Your task to perform on an android device: Open sound settings Image 0: 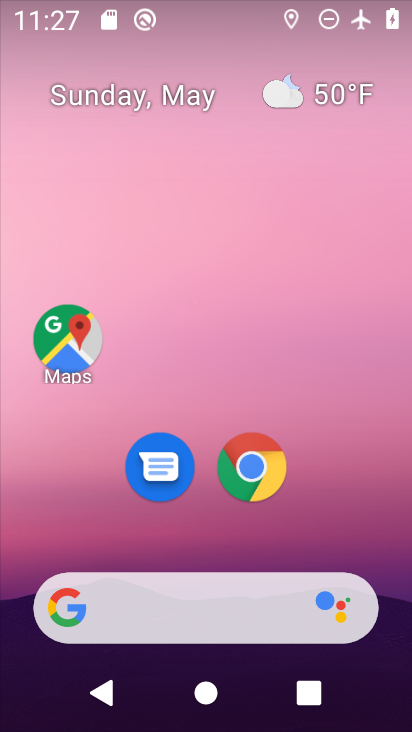
Step 0: drag from (197, 459) to (183, 224)
Your task to perform on an android device: Open sound settings Image 1: 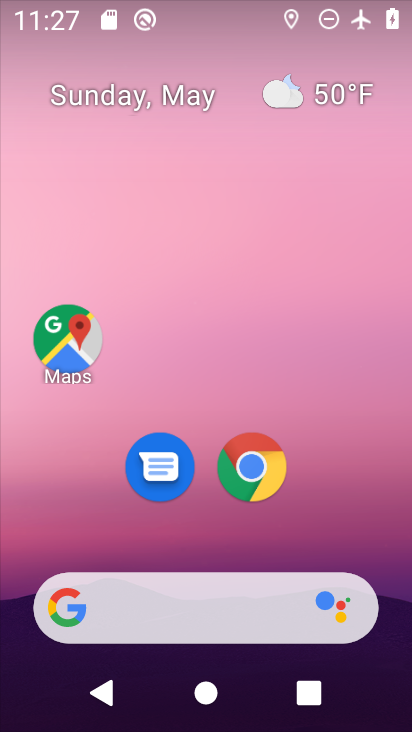
Step 1: drag from (204, 552) to (198, 35)
Your task to perform on an android device: Open sound settings Image 2: 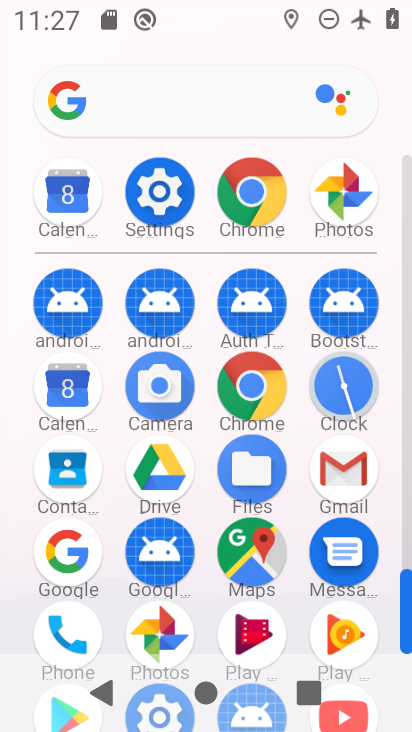
Step 2: click (155, 175)
Your task to perform on an android device: Open sound settings Image 3: 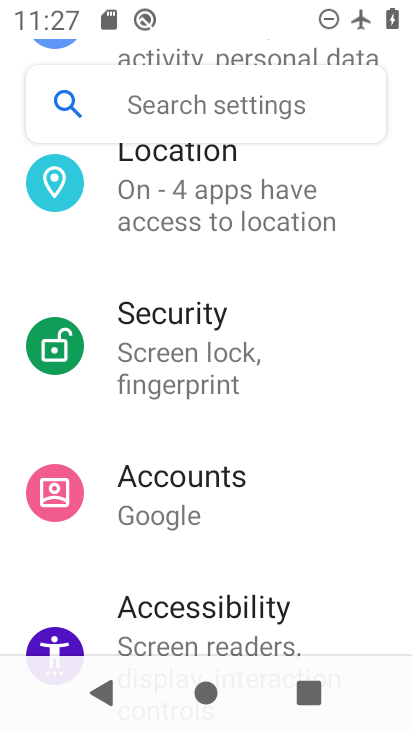
Step 3: drag from (256, 230) to (230, 494)
Your task to perform on an android device: Open sound settings Image 4: 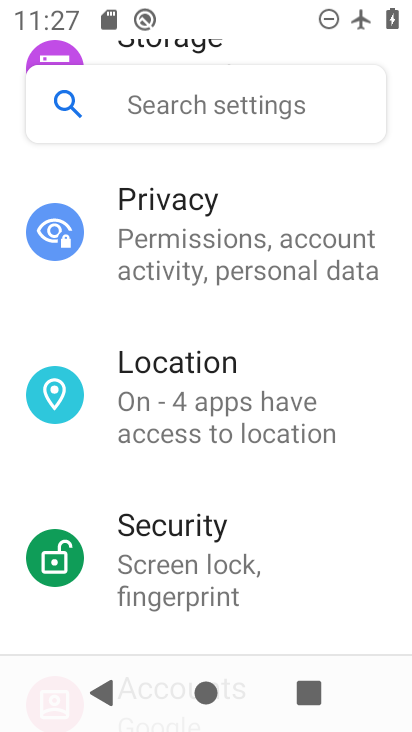
Step 4: drag from (229, 329) to (204, 588)
Your task to perform on an android device: Open sound settings Image 5: 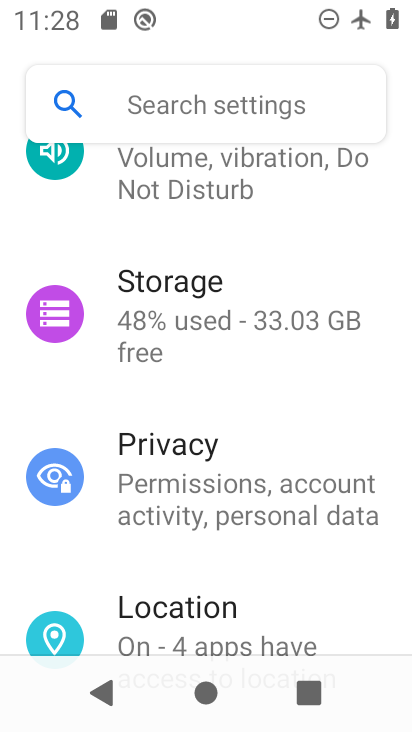
Step 5: drag from (196, 313) to (207, 508)
Your task to perform on an android device: Open sound settings Image 6: 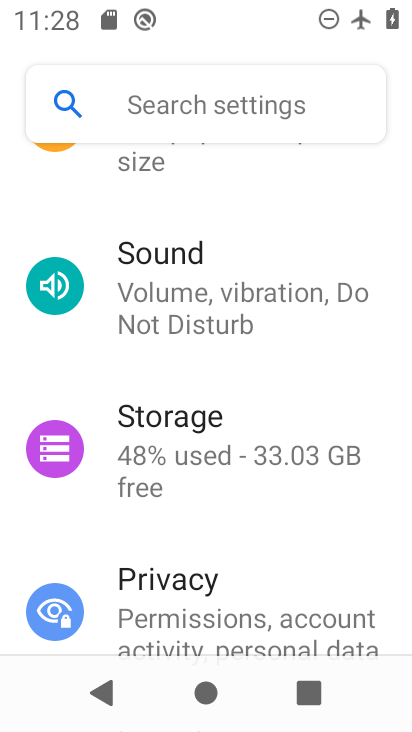
Step 6: click (195, 305)
Your task to perform on an android device: Open sound settings Image 7: 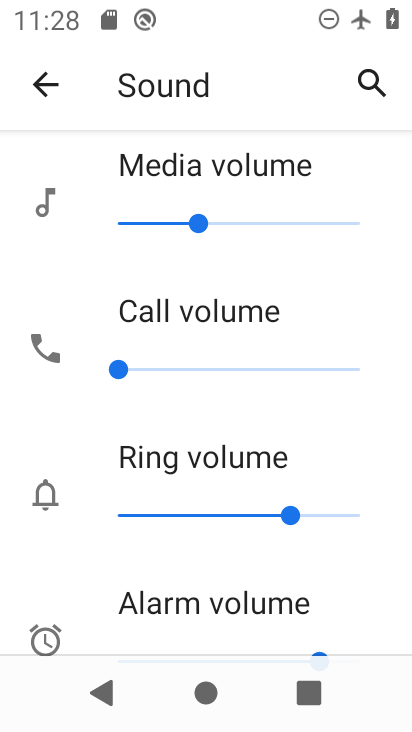
Step 7: task complete